Your task to perform on an android device: change the clock style Image 0: 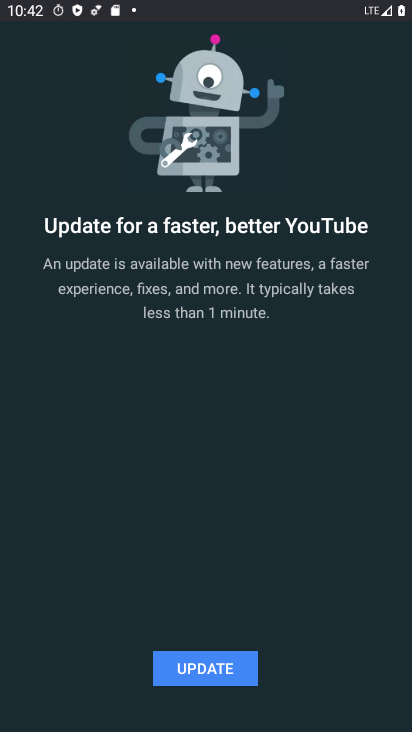
Step 0: press home button
Your task to perform on an android device: change the clock style Image 1: 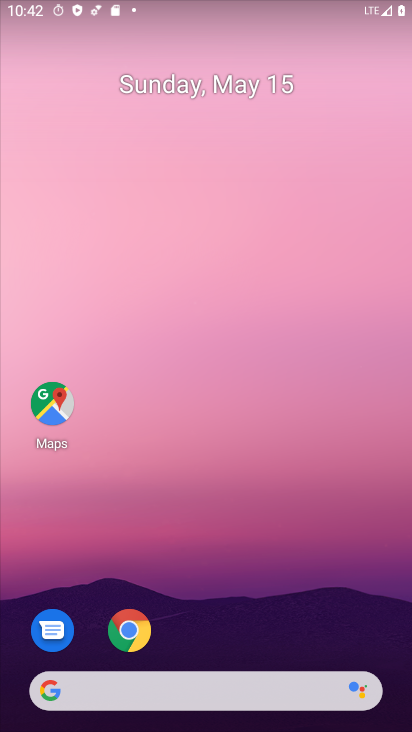
Step 1: drag from (201, 652) to (282, 56)
Your task to perform on an android device: change the clock style Image 2: 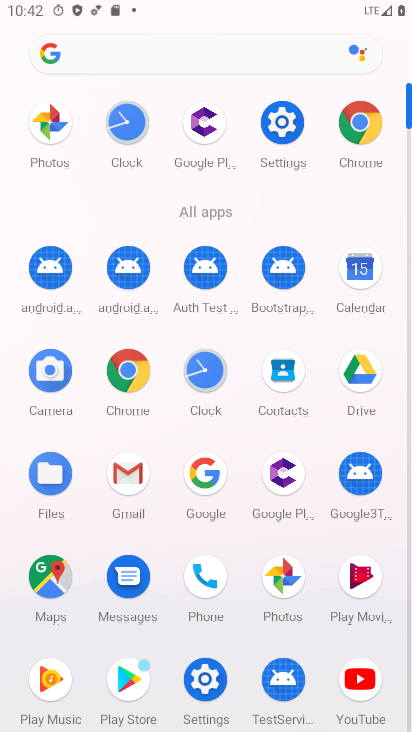
Step 2: click (216, 367)
Your task to perform on an android device: change the clock style Image 3: 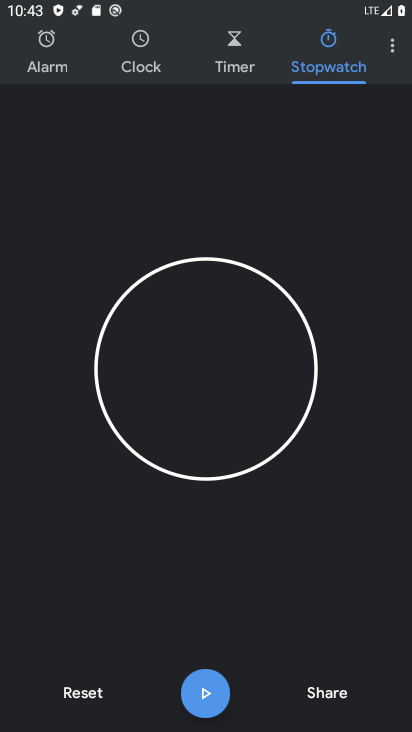
Step 3: click (388, 51)
Your task to perform on an android device: change the clock style Image 4: 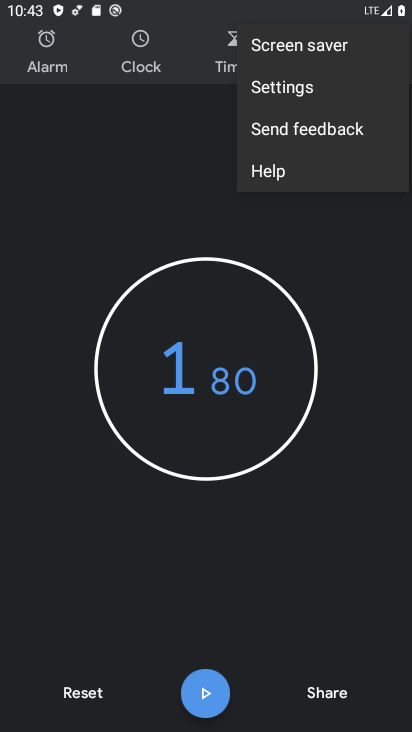
Step 4: click (282, 91)
Your task to perform on an android device: change the clock style Image 5: 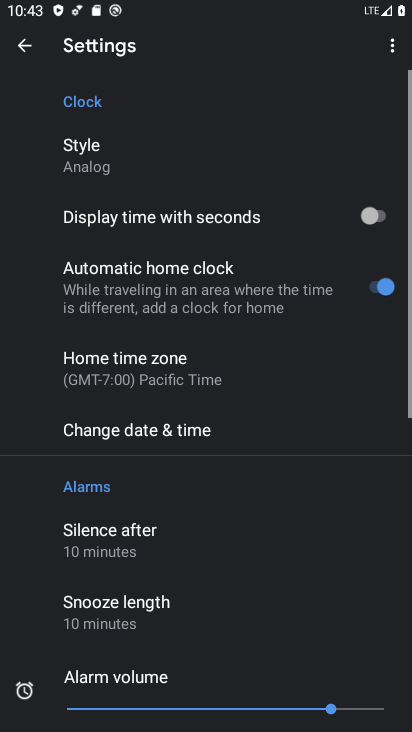
Step 5: click (68, 151)
Your task to perform on an android device: change the clock style Image 6: 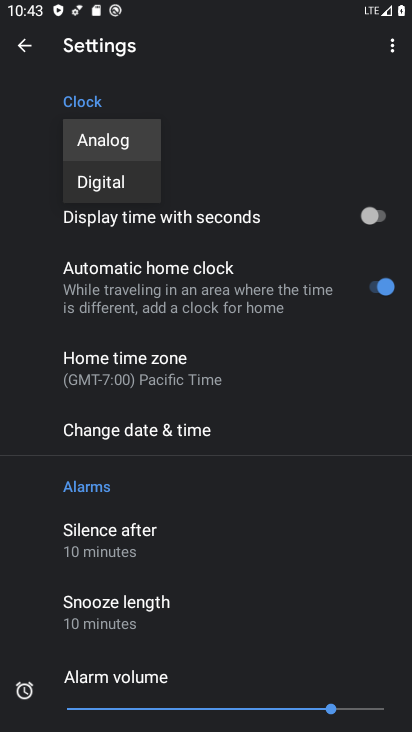
Step 6: click (104, 189)
Your task to perform on an android device: change the clock style Image 7: 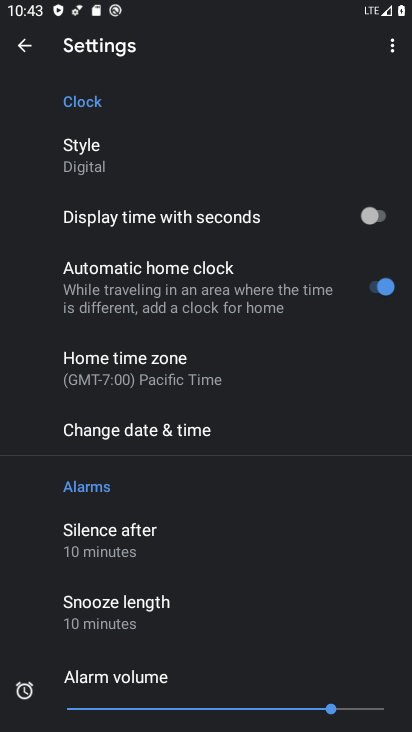
Step 7: task complete